Your task to perform on an android device: make emails show in primary in the gmail app Image 0: 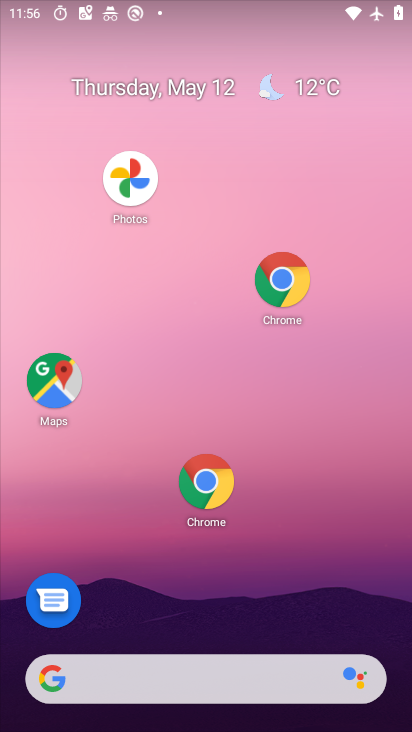
Step 0: drag from (180, 307) to (98, 163)
Your task to perform on an android device: make emails show in primary in the gmail app Image 1: 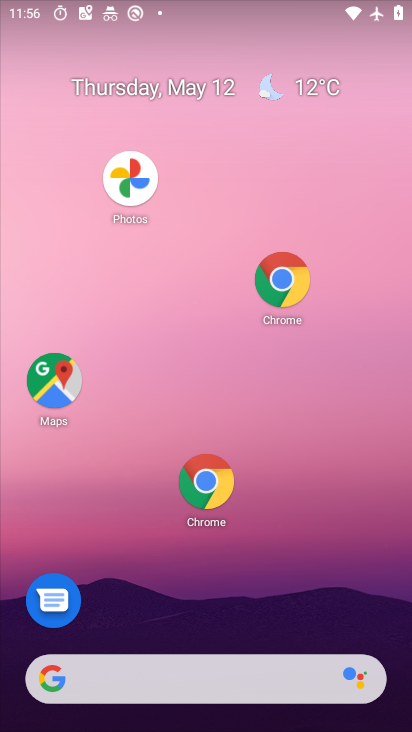
Step 1: drag from (345, 621) to (67, 126)
Your task to perform on an android device: make emails show in primary in the gmail app Image 2: 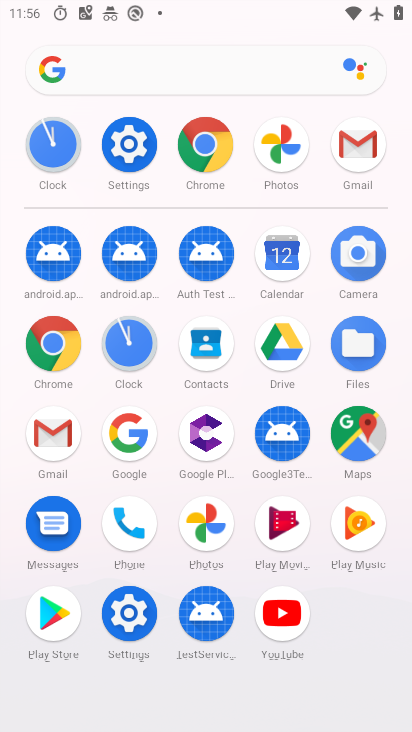
Step 2: click (352, 155)
Your task to perform on an android device: make emails show in primary in the gmail app Image 3: 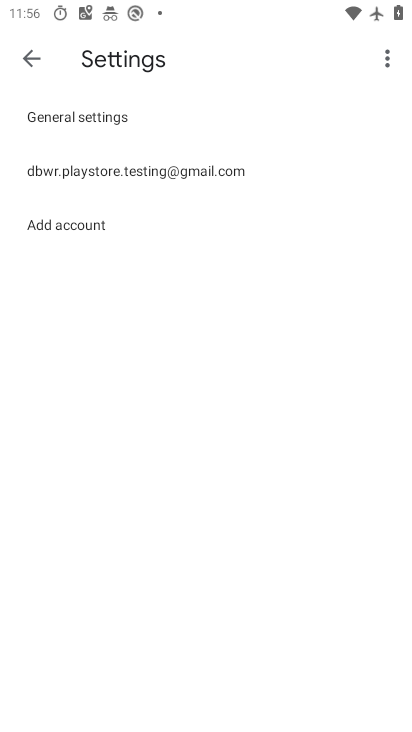
Step 3: click (31, 67)
Your task to perform on an android device: make emails show in primary in the gmail app Image 4: 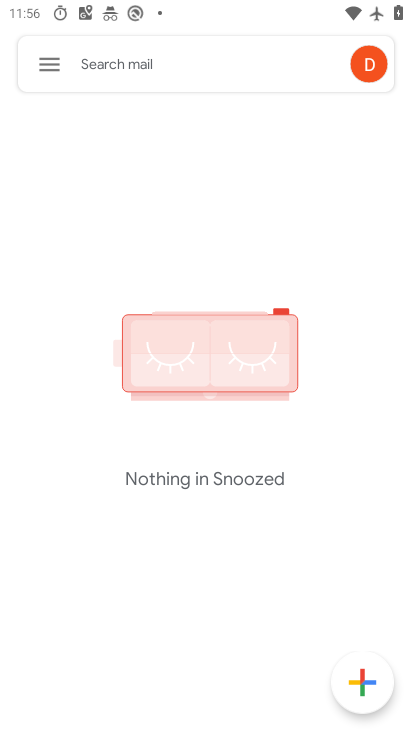
Step 4: click (48, 65)
Your task to perform on an android device: make emails show in primary in the gmail app Image 5: 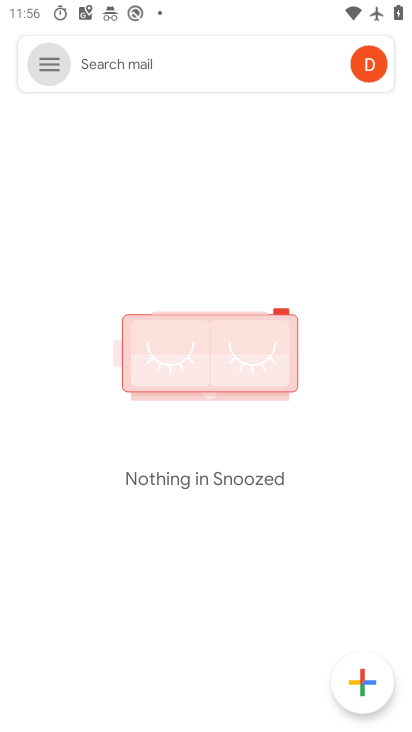
Step 5: click (53, 59)
Your task to perform on an android device: make emails show in primary in the gmail app Image 6: 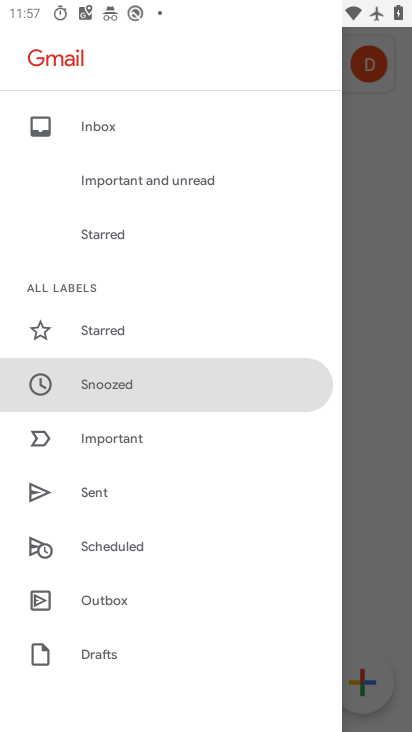
Step 6: drag from (178, 456) to (121, 69)
Your task to perform on an android device: make emails show in primary in the gmail app Image 7: 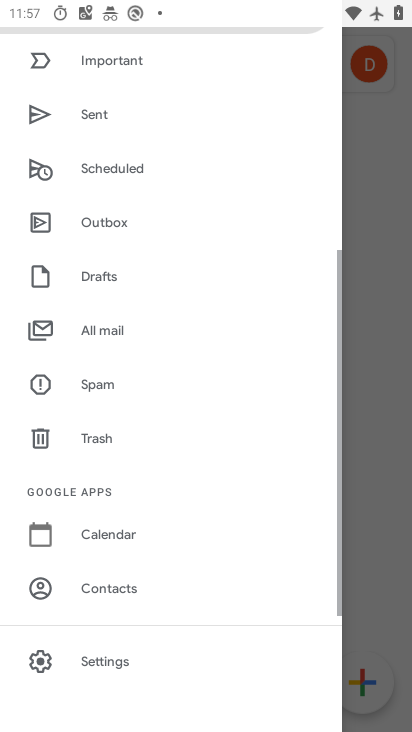
Step 7: drag from (188, 513) to (90, 209)
Your task to perform on an android device: make emails show in primary in the gmail app Image 8: 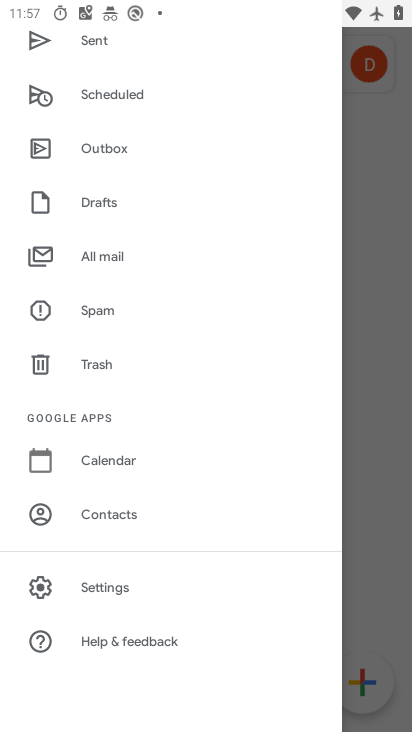
Step 8: click (101, 254)
Your task to perform on an android device: make emails show in primary in the gmail app Image 9: 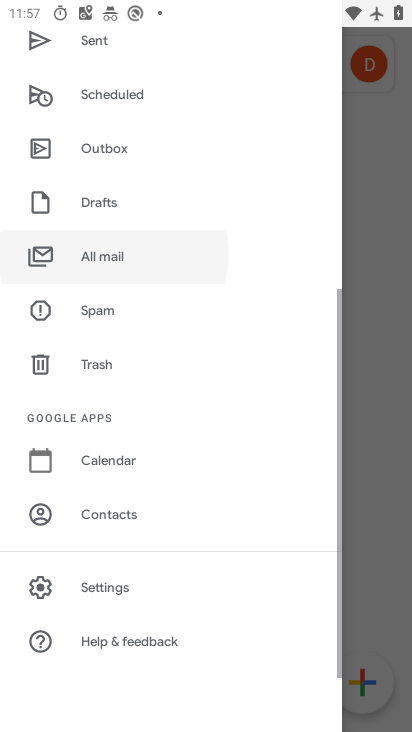
Step 9: click (101, 254)
Your task to perform on an android device: make emails show in primary in the gmail app Image 10: 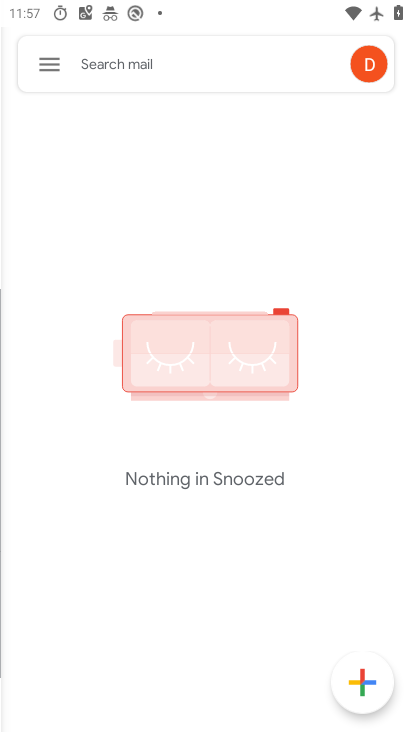
Step 10: click (102, 254)
Your task to perform on an android device: make emails show in primary in the gmail app Image 11: 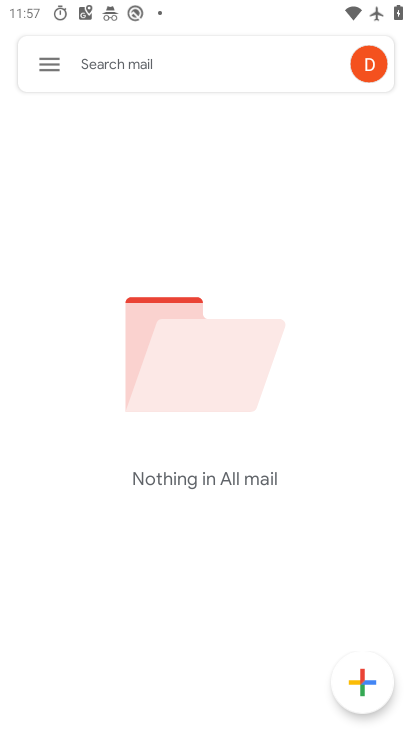
Step 11: task complete